Your task to perform on an android device: Open Chrome and go to settings Image 0: 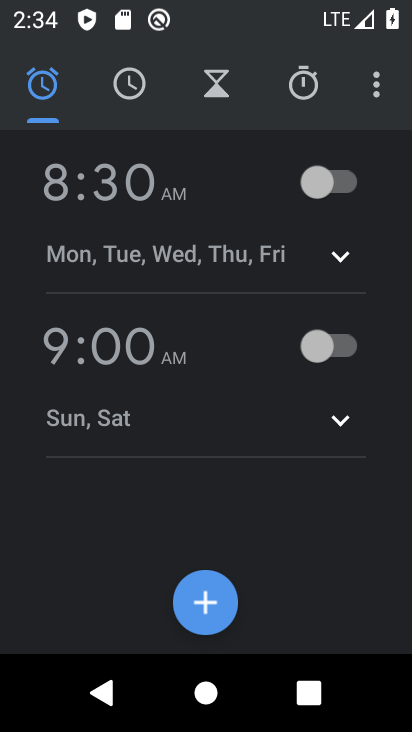
Step 0: press home button
Your task to perform on an android device: Open Chrome and go to settings Image 1: 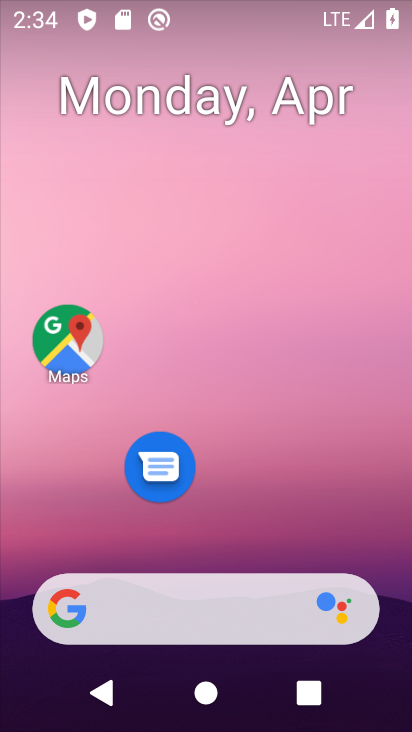
Step 1: drag from (283, 487) to (379, 83)
Your task to perform on an android device: Open Chrome and go to settings Image 2: 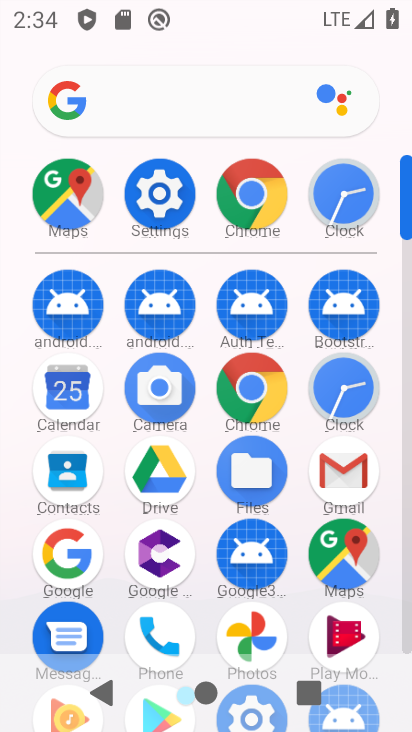
Step 2: click (265, 179)
Your task to perform on an android device: Open Chrome and go to settings Image 3: 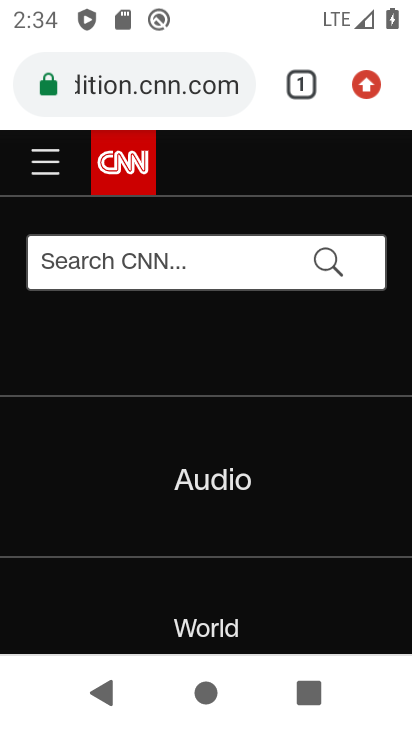
Step 3: click (351, 87)
Your task to perform on an android device: Open Chrome and go to settings Image 4: 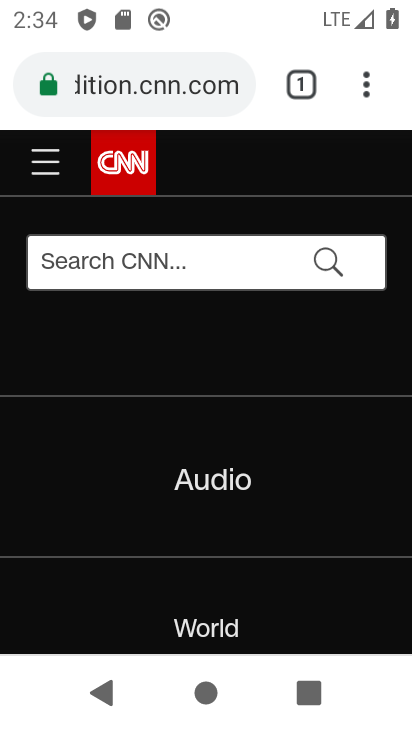
Step 4: click (356, 88)
Your task to perform on an android device: Open Chrome and go to settings Image 5: 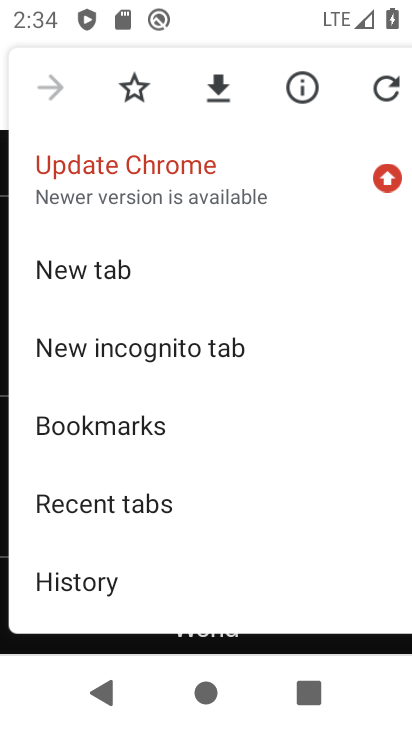
Step 5: drag from (186, 533) to (286, 235)
Your task to perform on an android device: Open Chrome and go to settings Image 6: 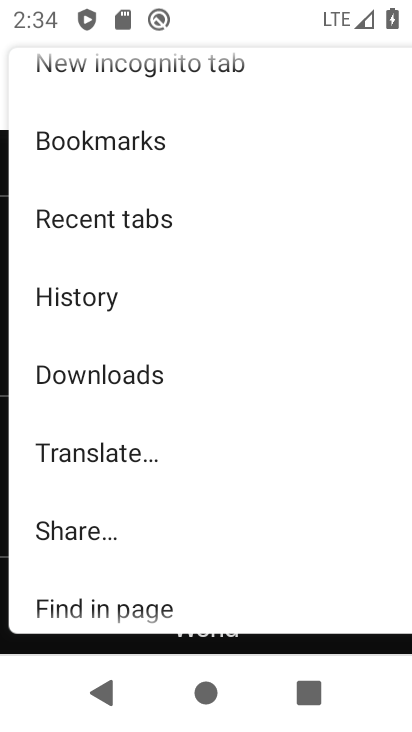
Step 6: drag from (214, 515) to (276, 268)
Your task to perform on an android device: Open Chrome and go to settings Image 7: 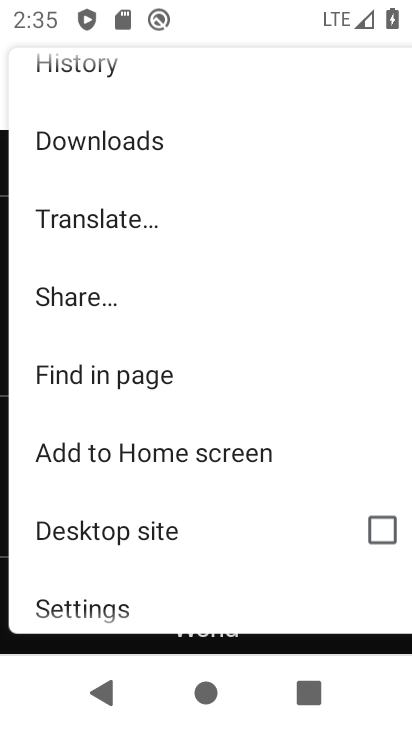
Step 7: drag from (254, 529) to (273, 306)
Your task to perform on an android device: Open Chrome and go to settings Image 8: 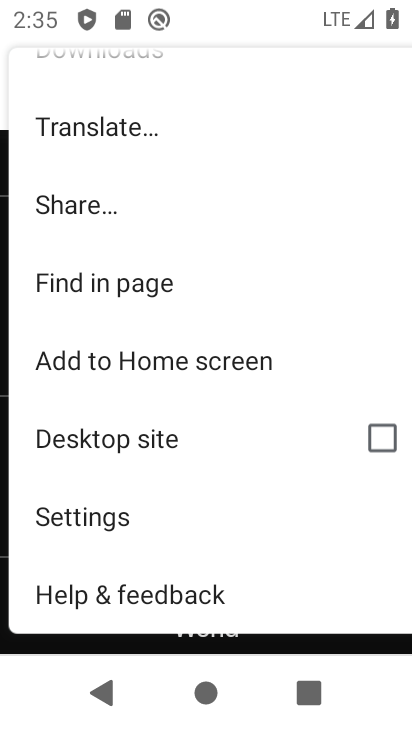
Step 8: click (251, 520)
Your task to perform on an android device: Open Chrome and go to settings Image 9: 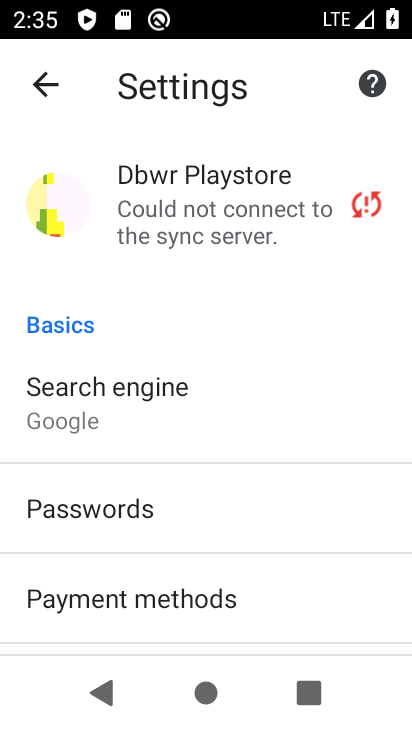
Step 9: task complete